Your task to perform on an android device: Open wifi settings Image 0: 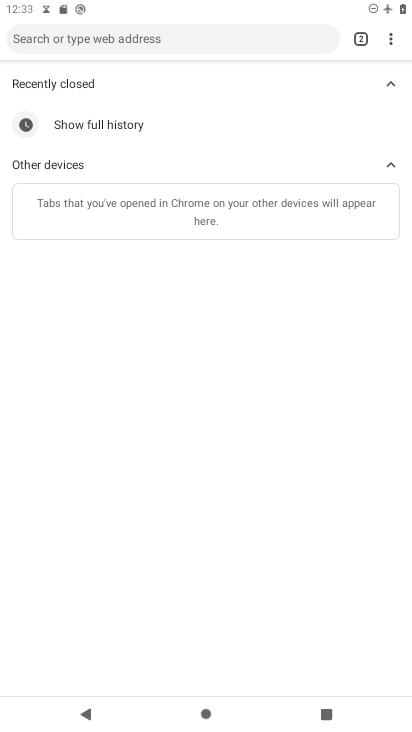
Step 0: press home button
Your task to perform on an android device: Open wifi settings Image 1: 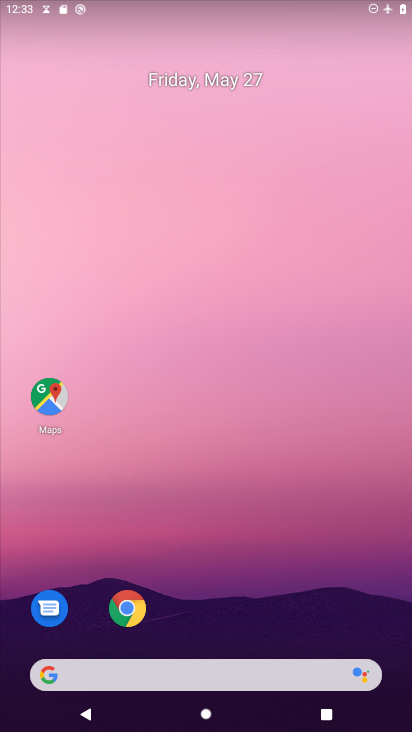
Step 1: drag from (243, 592) to (332, 57)
Your task to perform on an android device: Open wifi settings Image 2: 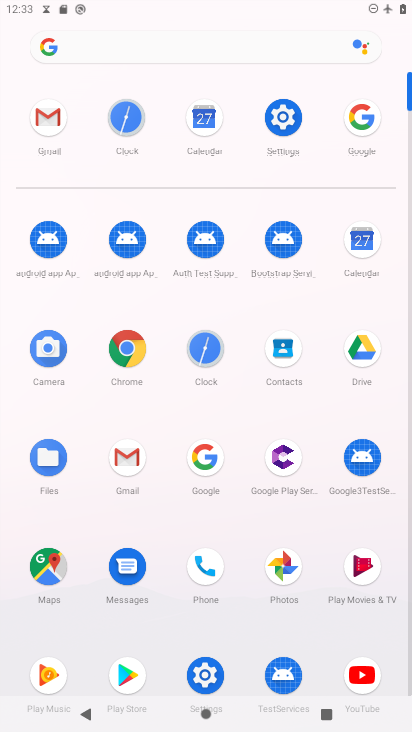
Step 2: click (288, 116)
Your task to perform on an android device: Open wifi settings Image 3: 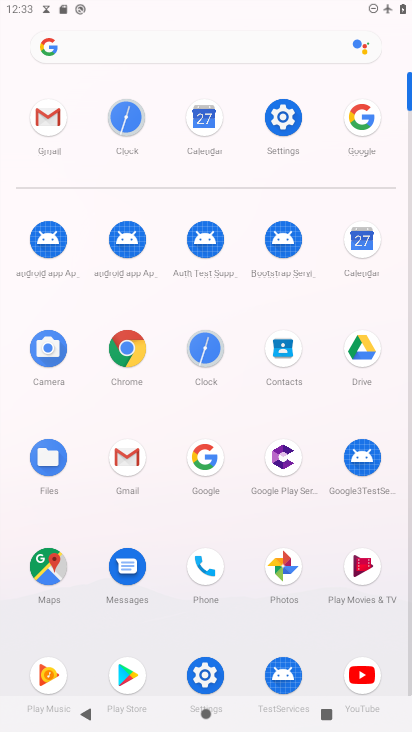
Step 3: click (282, 112)
Your task to perform on an android device: Open wifi settings Image 4: 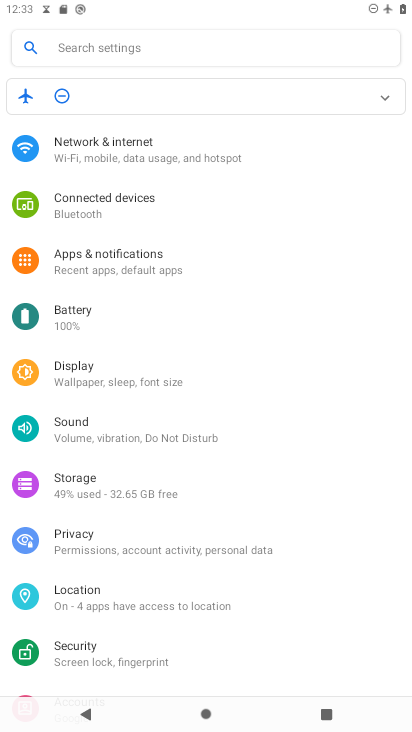
Step 4: click (135, 154)
Your task to perform on an android device: Open wifi settings Image 5: 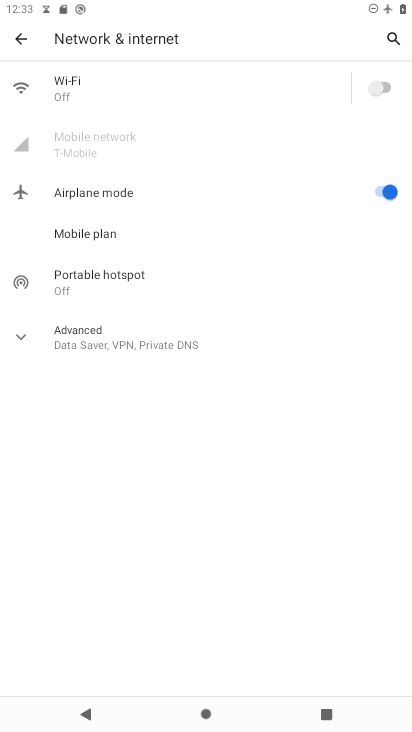
Step 5: click (86, 89)
Your task to perform on an android device: Open wifi settings Image 6: 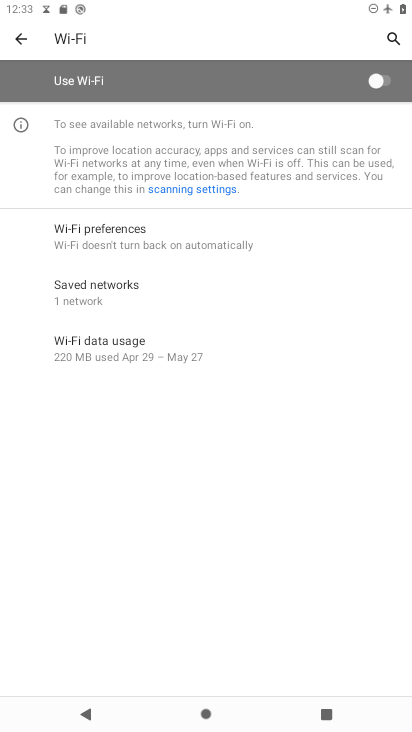
Step 6: task complete